Your task to perform on an android device: Go to eBay Image 0: 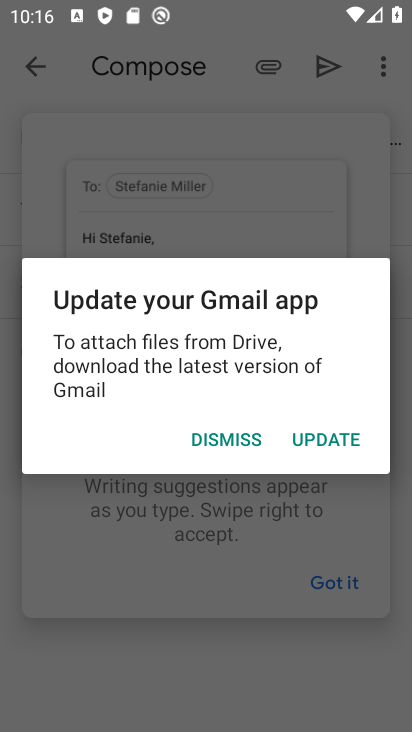
Step 0: press home button
Your task to perform on an android device: Go to eBay Image 1: 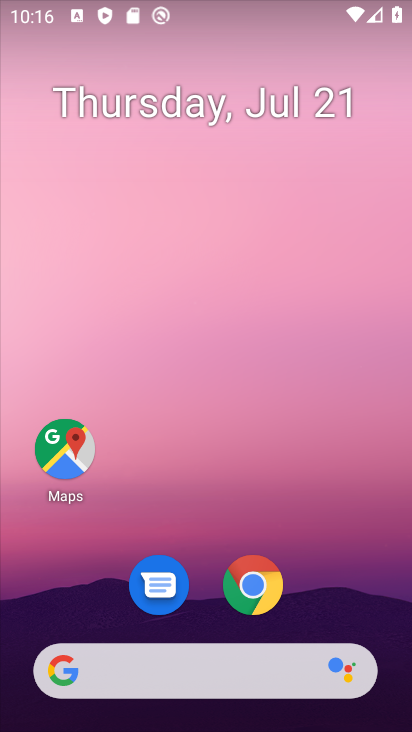
Step 1: click (246, 667)
Your task to perform on an android device: Go to eBay Image 2: 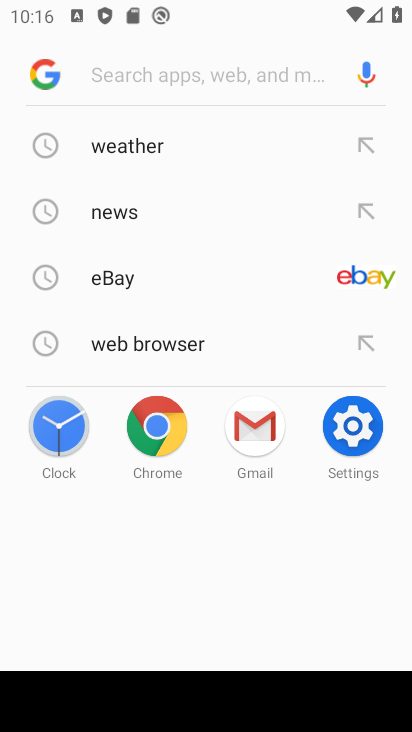
Step 2: click (364, 271)
Your task to perform on an android device: Go to eBay Image 3: 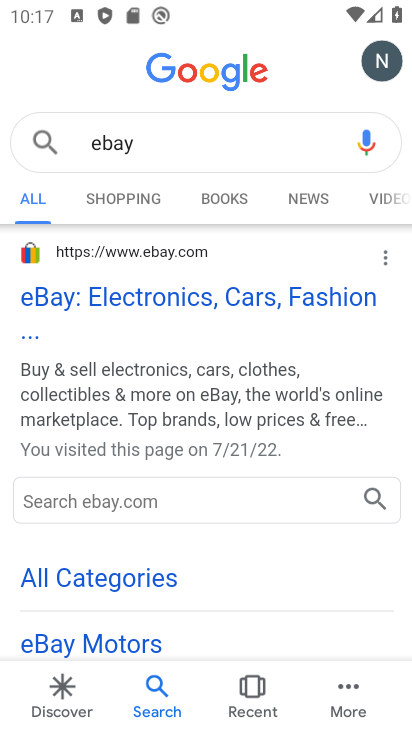
Step 3: click (58, 299)
Your task to perform on an android device: Go to eBay Image 4: 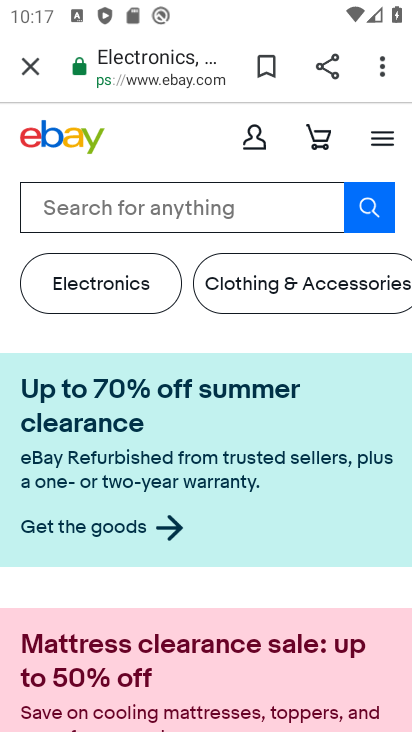
Step 4: task complete